Your task to perform on an android device: open wifi settings Image 0: 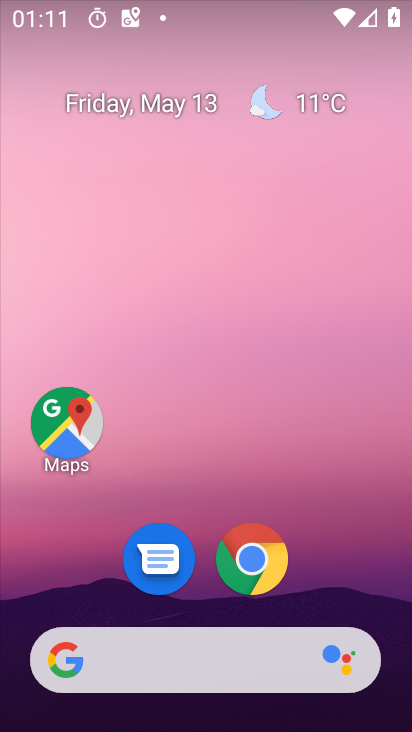
Step 0: drag from (210, 607) to (179, 135)
Your task to perform on an android device: open wifi settings Image 1: 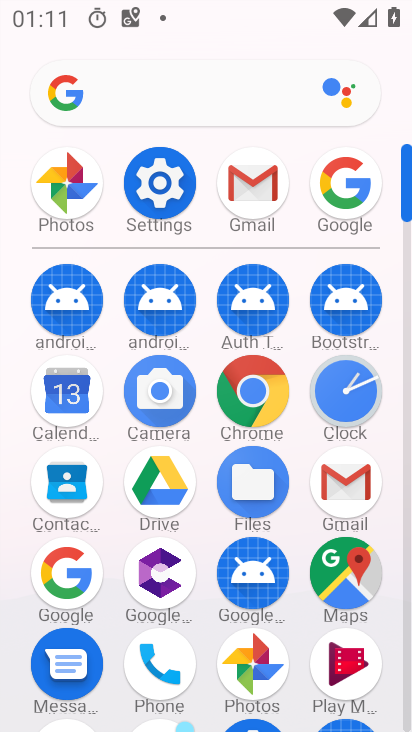
Step 1: click (159, 186)
Your task to perform on an android device: open wifi settings Image 2: 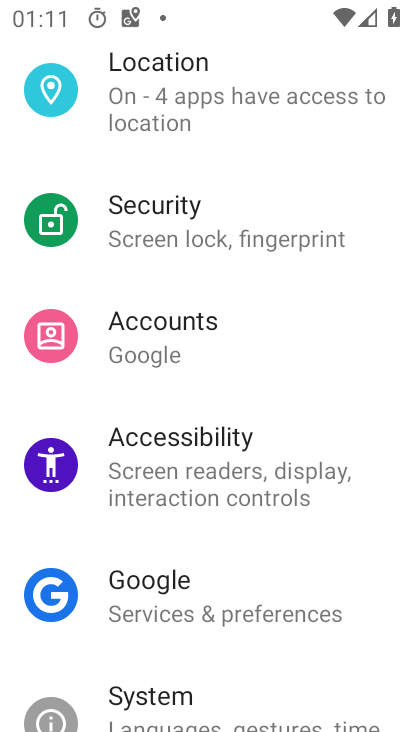
Step 2: drag from (166, 158) to (264, 731)
Your task to perform on an android device: open wifi settings Image 3: 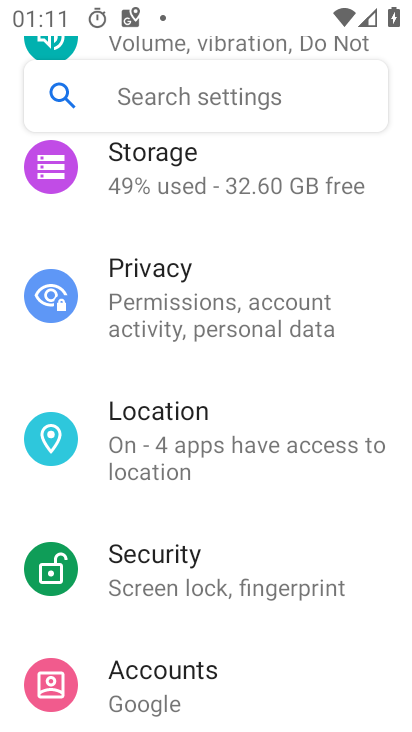
Step 3: drag from (132, 161) to (294, 729)
Your task to perform on an android device: open wifi settings Image 4: 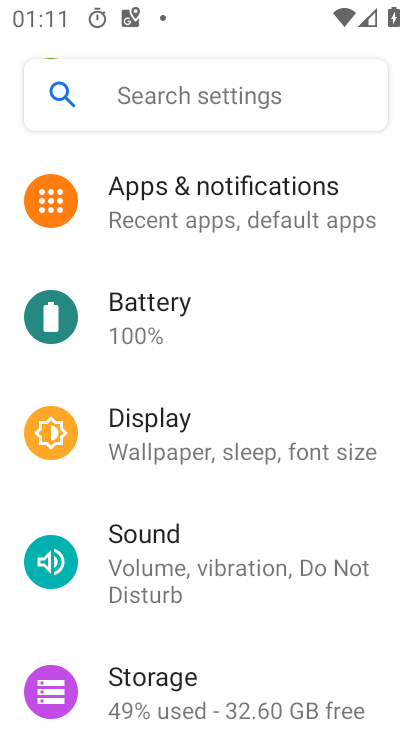
Step 4: drag from (115, 160) to (259, 613)
Your task to perform on an android device: open wifi settings Image 5: 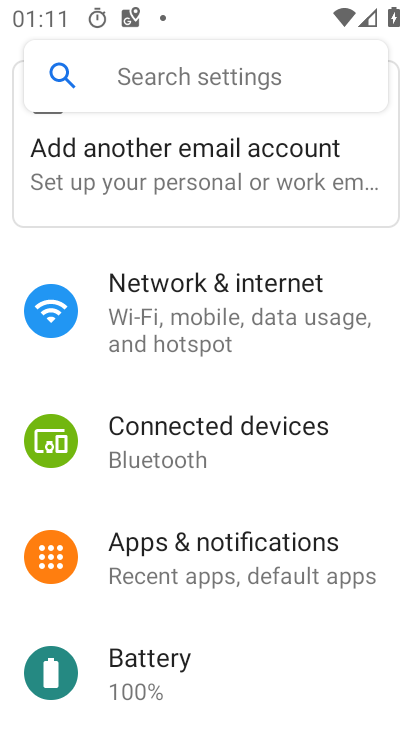
Step 5: click (168, 245)
Your task to perform on an android device: open wifi settings Image 6: 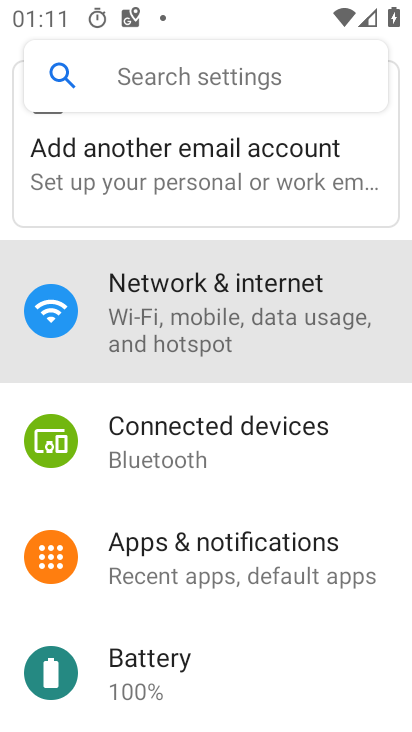
Step 6: click (215, 303)
Your task to perform on an android device: open wifi settings Image 7: 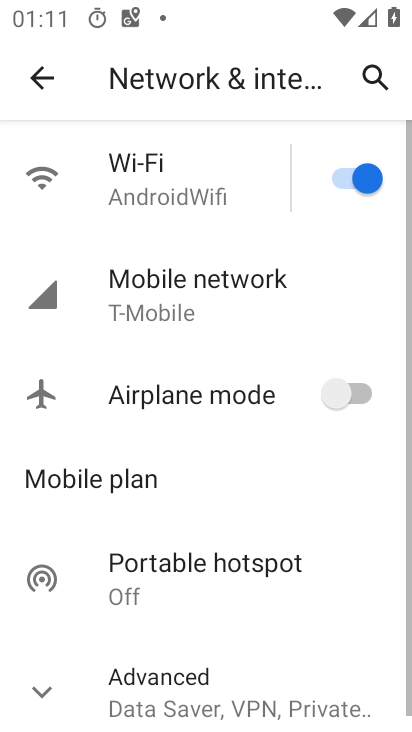
Step 7: click (195, 178)
Your task to perform on an android device: open wifi settings Image 8: 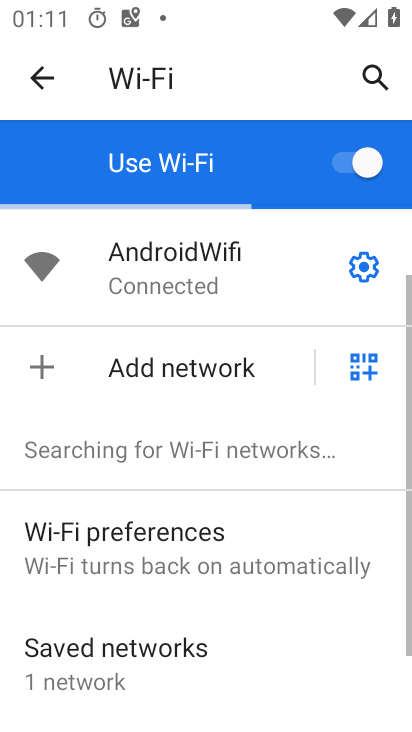
Step 8: click (368, 269)
Your task to perform on an android device: open wifi settings Image 9: 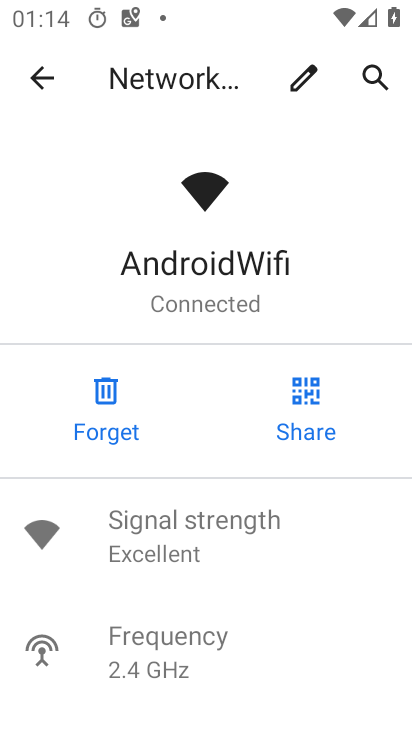
Step 9: task complete